Your task to perform on an android device: toggle airplane mode Image 0: 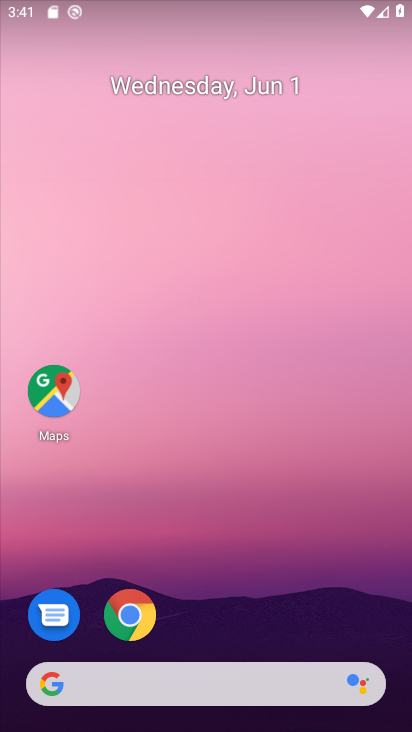
Step 0: drag from (257, 547) to (255, 180)
Your task to perform on an android device: toggle airplane mode Image 1: 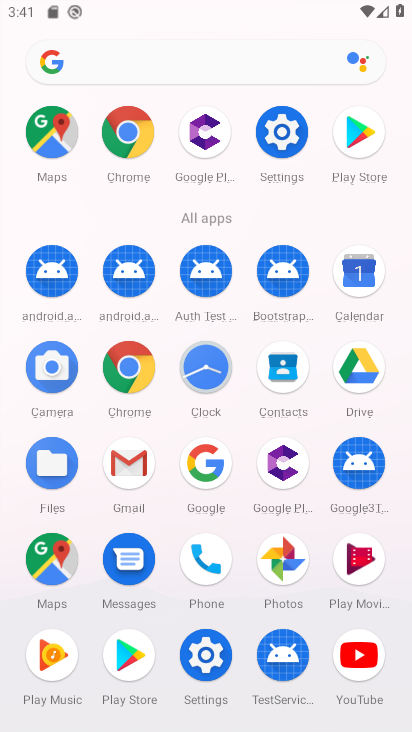
Step 1: click (289, 131)
Your task to perform on an android device: toggle airplane mode Image 2: 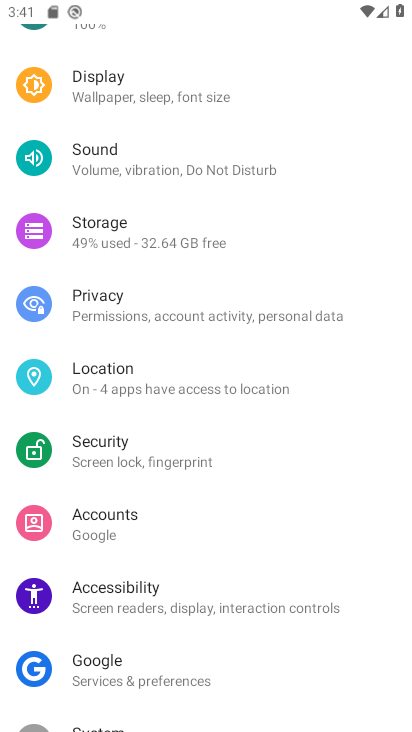
Step 2: drag from (216, 158) to (169, 584)
Your task to perform on an android device: toggle airplane mode Image 3: 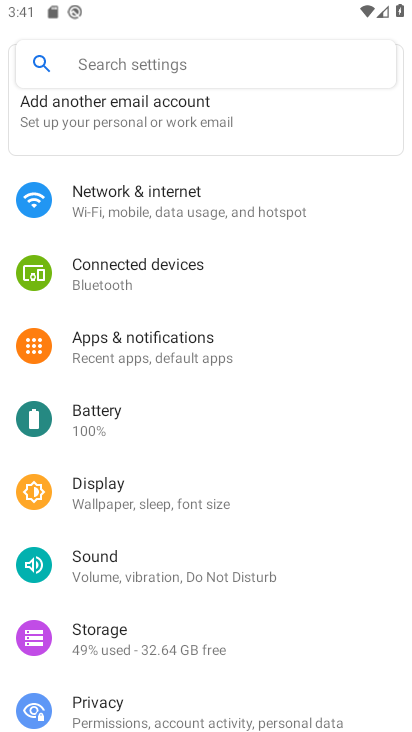
Step 3: click (146, 185)
Your task to perform on an android device: toggle airplane mode Image 4: 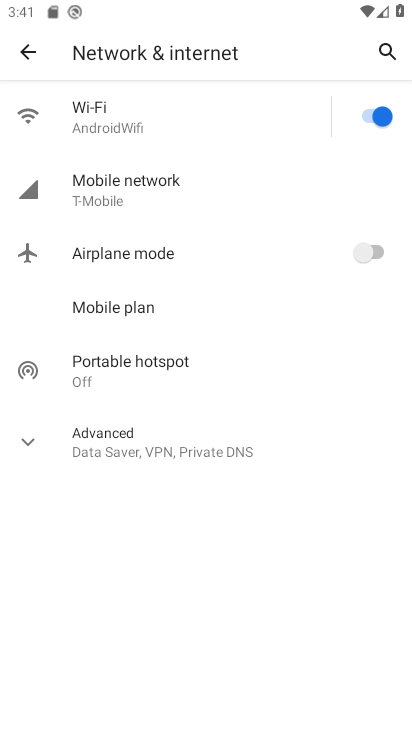
Step 4: click (377, 249)
Your task to perform on an android device: toggle airplane mode Image 5: 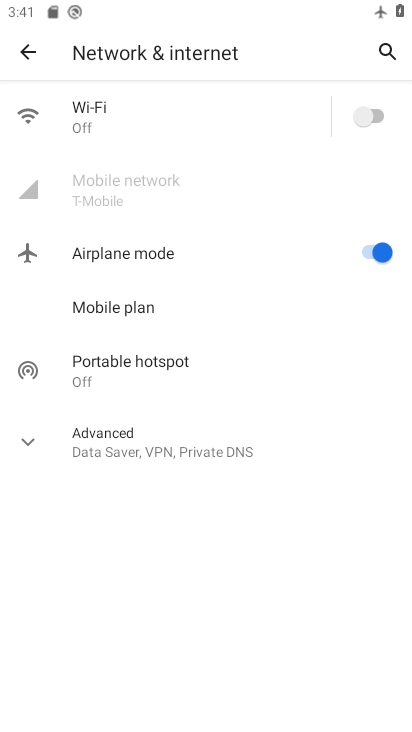
Step 5: task complete